Your task to perform on an android device: Empty the shopping cart on newegg.com. Add usb-b to the cart on newegg.com Image 0: 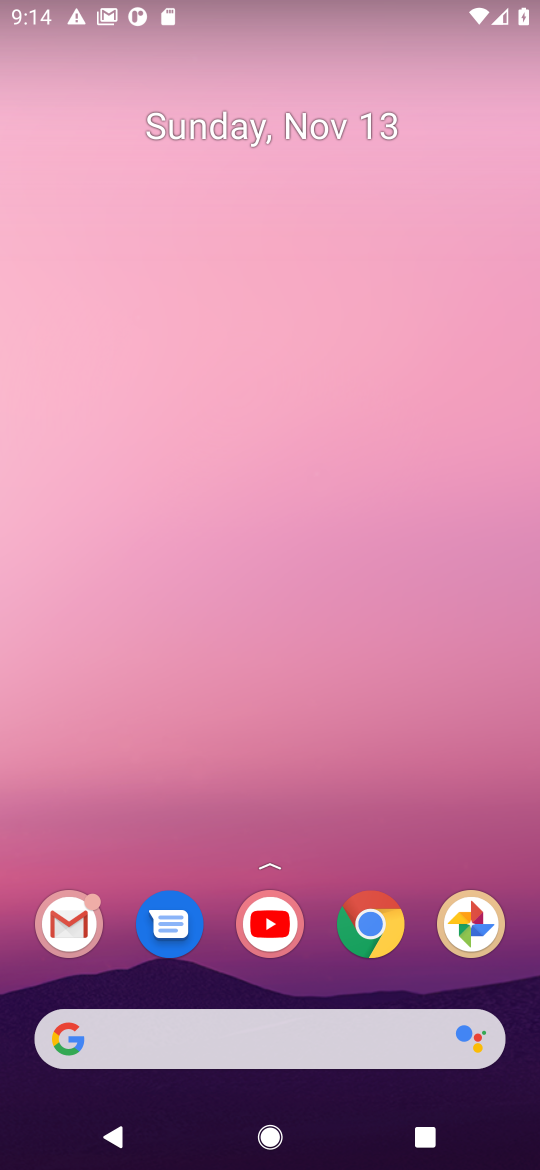
Step 0: click (374, 934)
Your task to perform on an android device: Empty the shopping cart on newegg.com. Add usb-b to the cart on newegg.com Image 1: 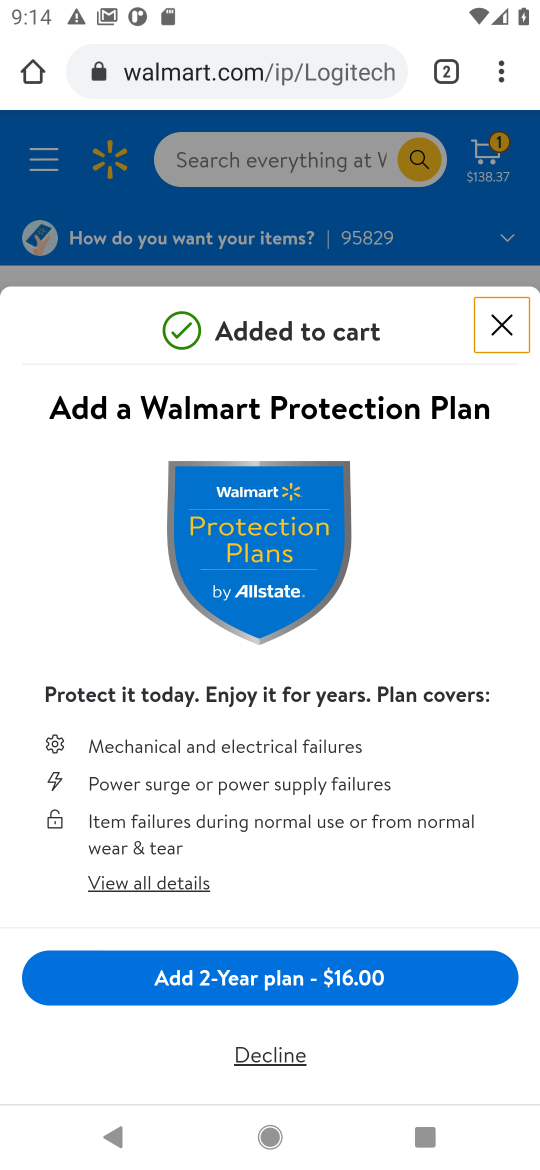
Step 1: click (231, 84)
Your task to perform on an android device: Empty the shopping cart on newegg.com. Add usb-b to the cart on newegg.com Image 2: 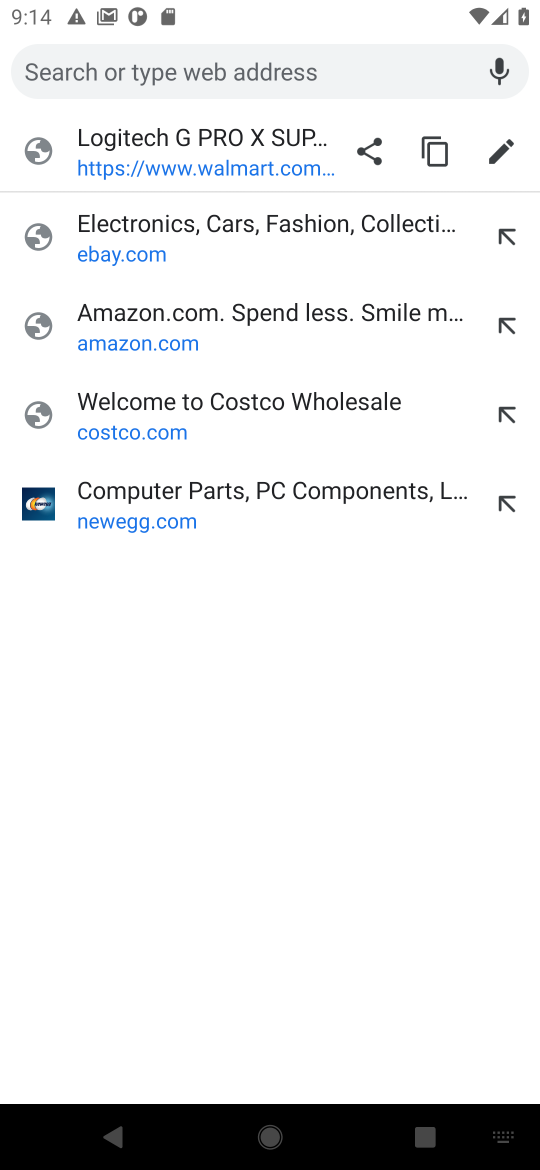
Step 2: click (112, 518)
Your task to perform on an android device: Empty the shopping cart on newegg.com. Add usb-b to the cart on newegg.com Image 3: 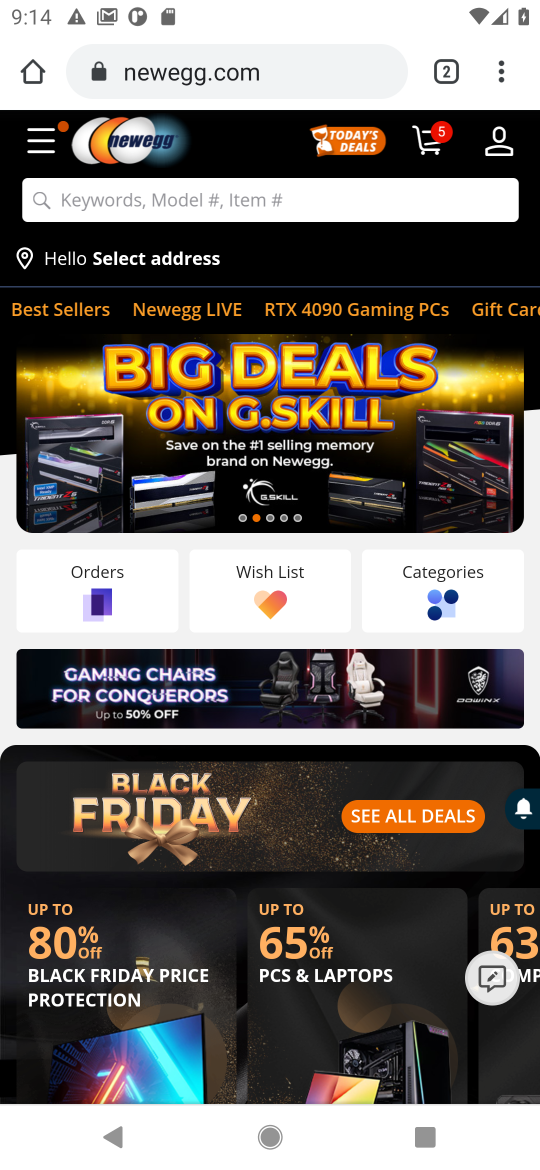
Step 3: click (421, 152)
Your task to perform on an android device: Empty the shopping cart on newegg.com. Add usb-b to the cart on newegg.com Image 4: 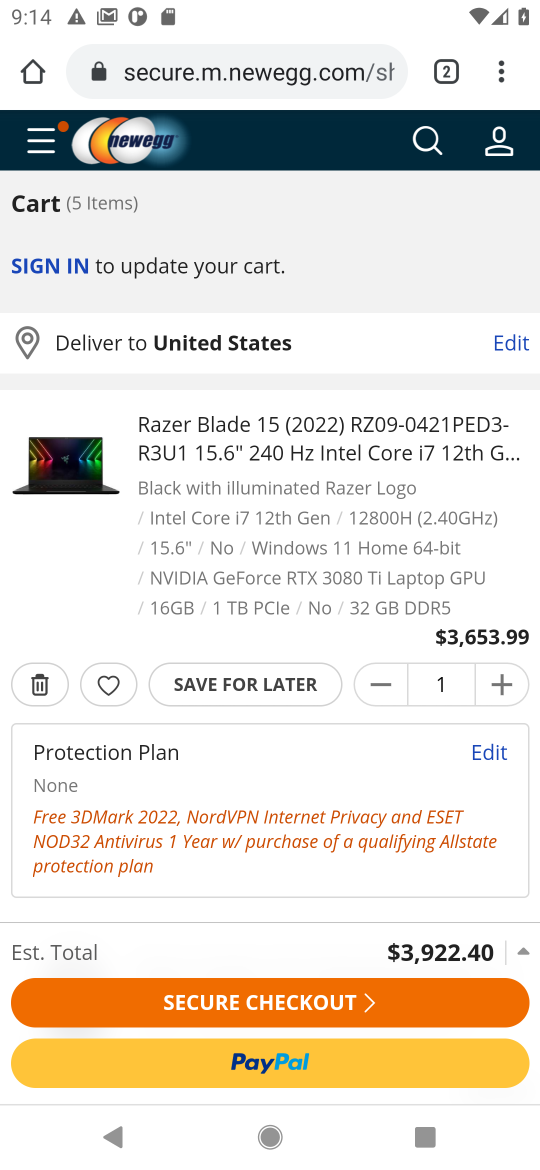
Step 4: click (41, 700)
Your task to perform on an android device: Empty the shopping cart on newegg.com. Add usb-b to the cart on newegg.com Image 5: 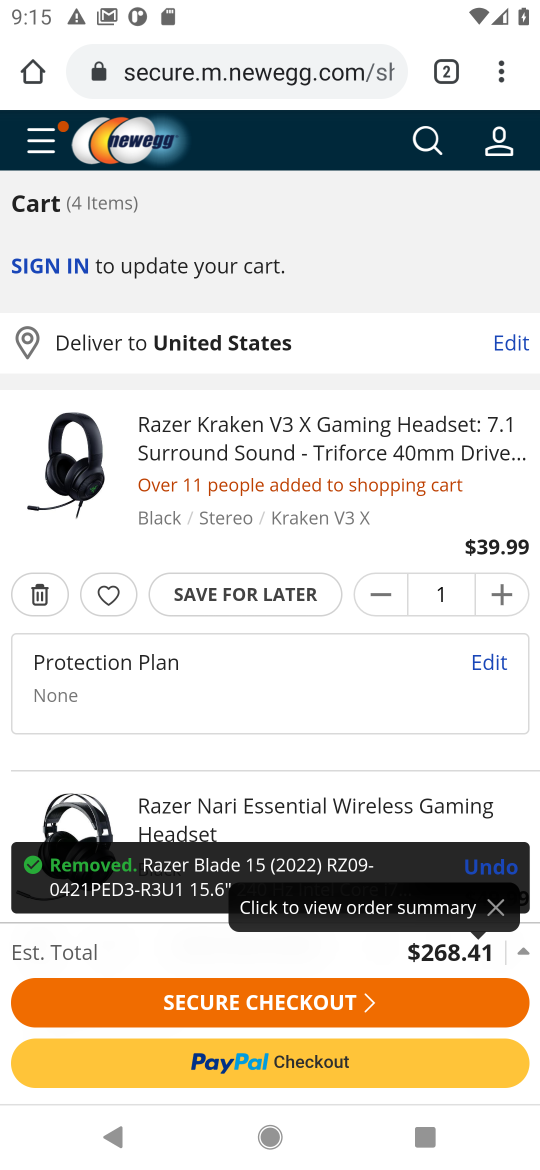
Step 5: click (40, 596)
Your task to perform on an android device: Empty the shopping cart on newegg.com. Add usb-b to the cart on newegg.com Image 6: 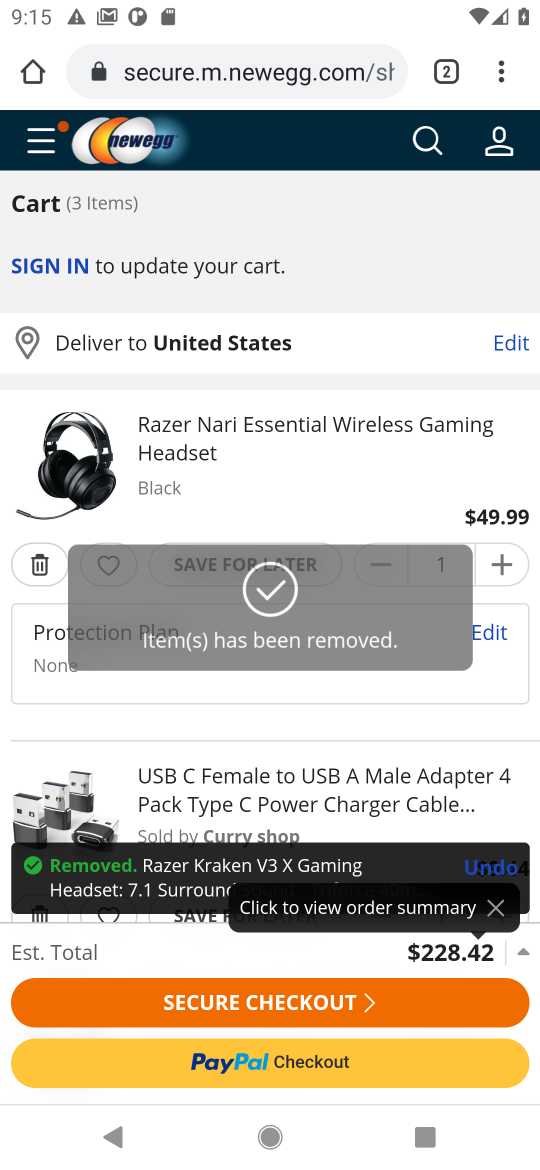
Step 6: click (36, 573)
Your task to perform on an android device: Empty the shopping cart on newegg.com. Add usb-b to the cart on newegg.com Image 7: 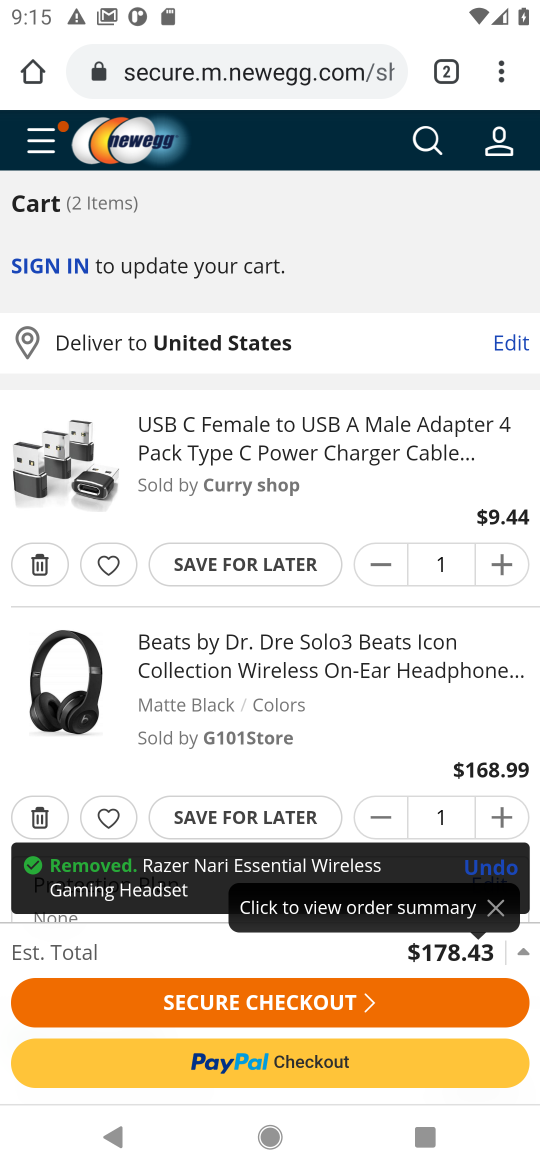
Step 7: click (48, 566)
Your task to perform on an android device: Empty the shopping cart on newegg.com. Add usb-b to the cart on newegg.com Image 8: 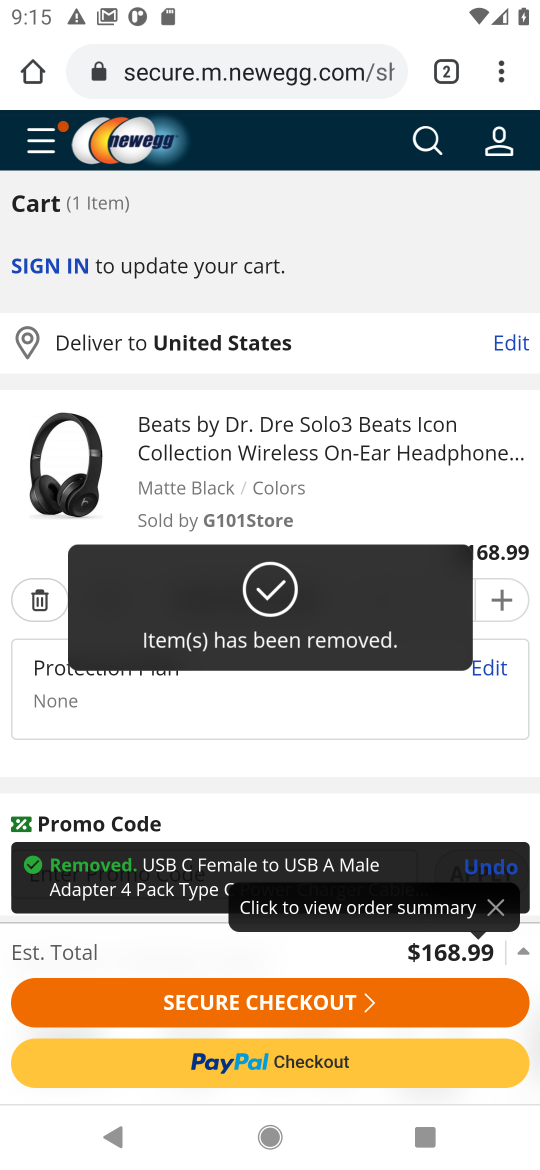
Step 8: click (33, 603)
Your task to perform on an android device: Empty the shopping cart on newegg.com. Add usb-b to the cart on newegg.com Image 9: 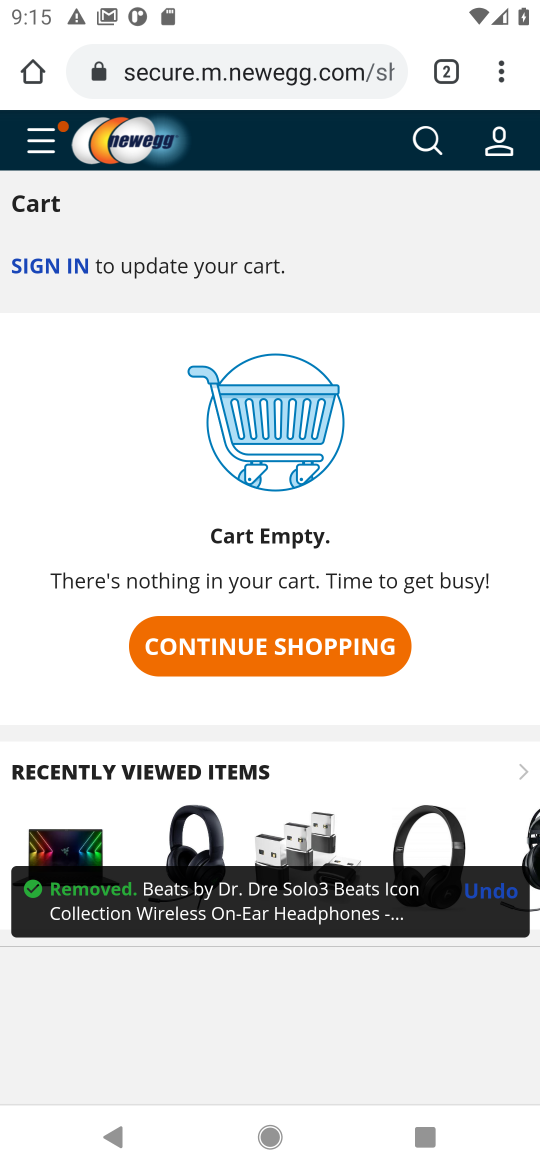
Step 9: click (262, 652)
Your task to perform on an android device: Empty the shopping cart on newegg.com. Add usb-b to the cart on newegg.com Image 10: 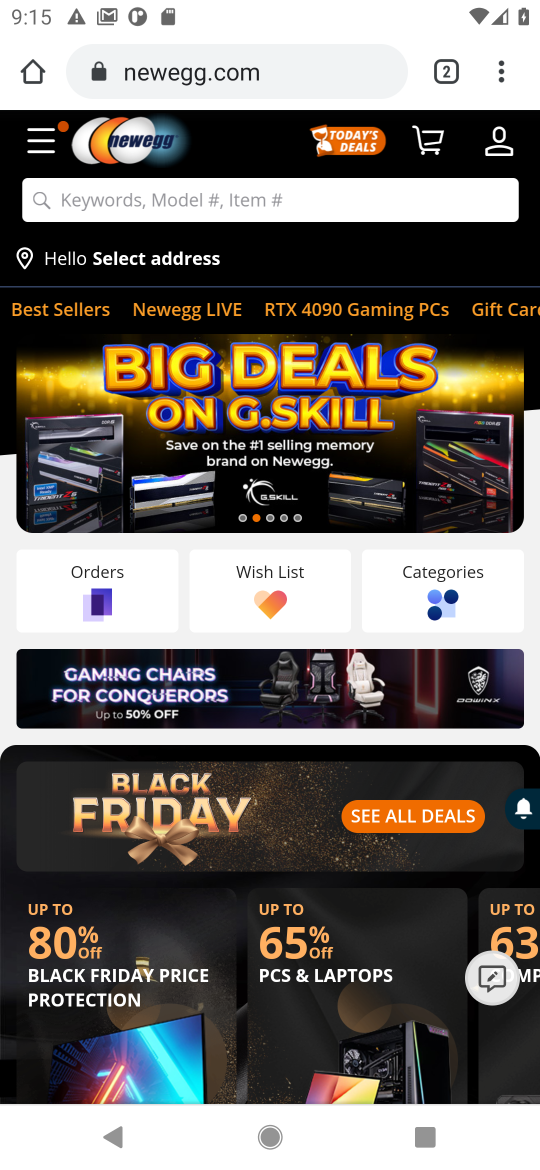
Step 10: click (148, 204)
Your task to perform on an android device: Empty the shopping cart on newegg.com. Add usb-b to the cart on newegg.com Image 11: 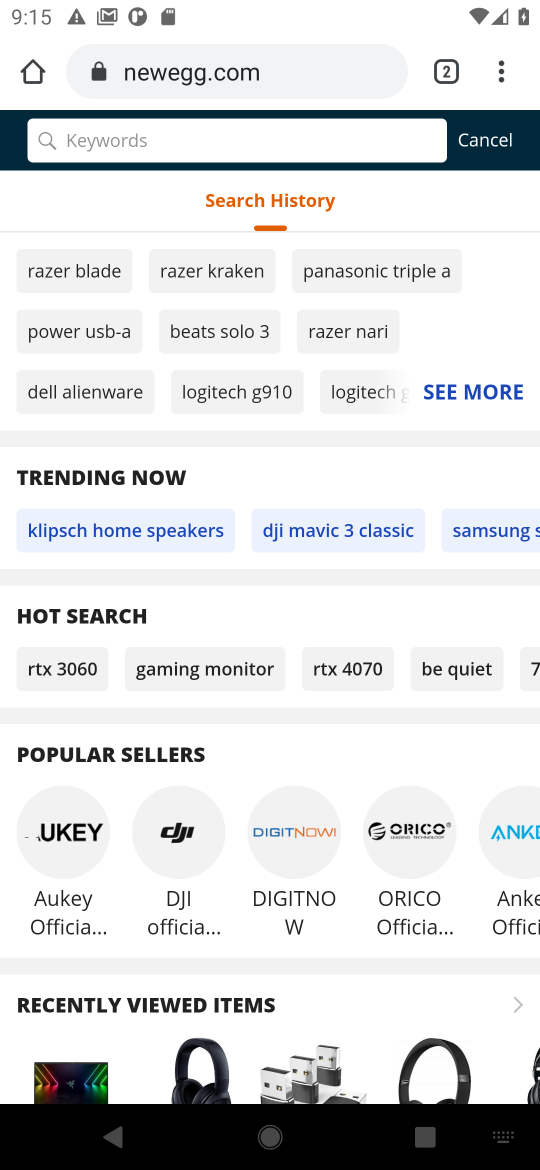
Step 11: type " usb-b"
Your task to perform on an android device: Empty the shopping cart on newegg.com. Add usb-b to the cart on newegg.com Image 12: 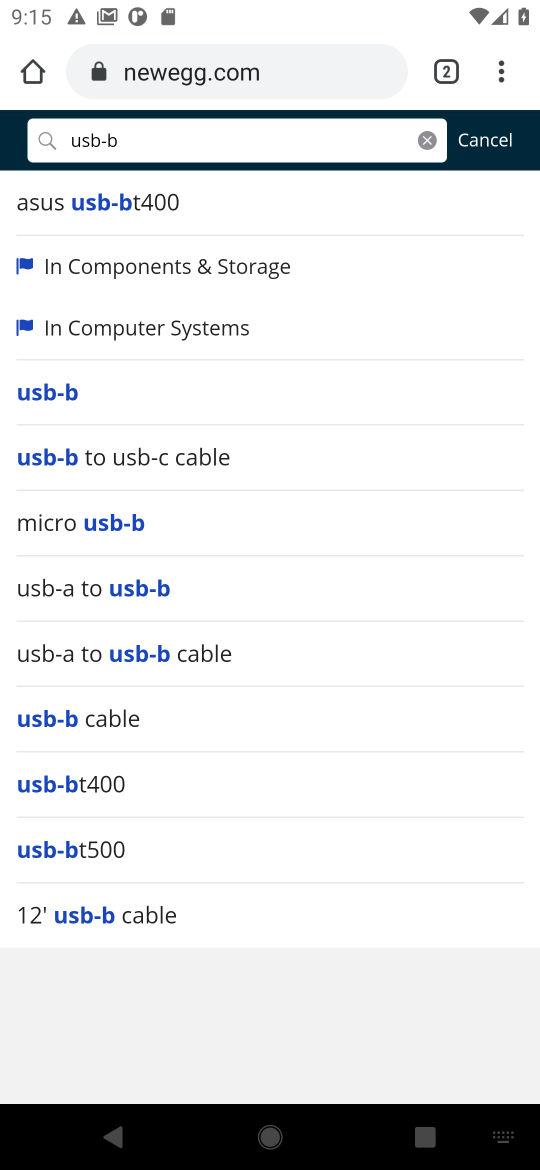
Step 12: click (67, 388)
Your task to perform on an android device: Empty the shopping cart on newegg.com. Add usb-b to the cart on newegg.com Image 13: 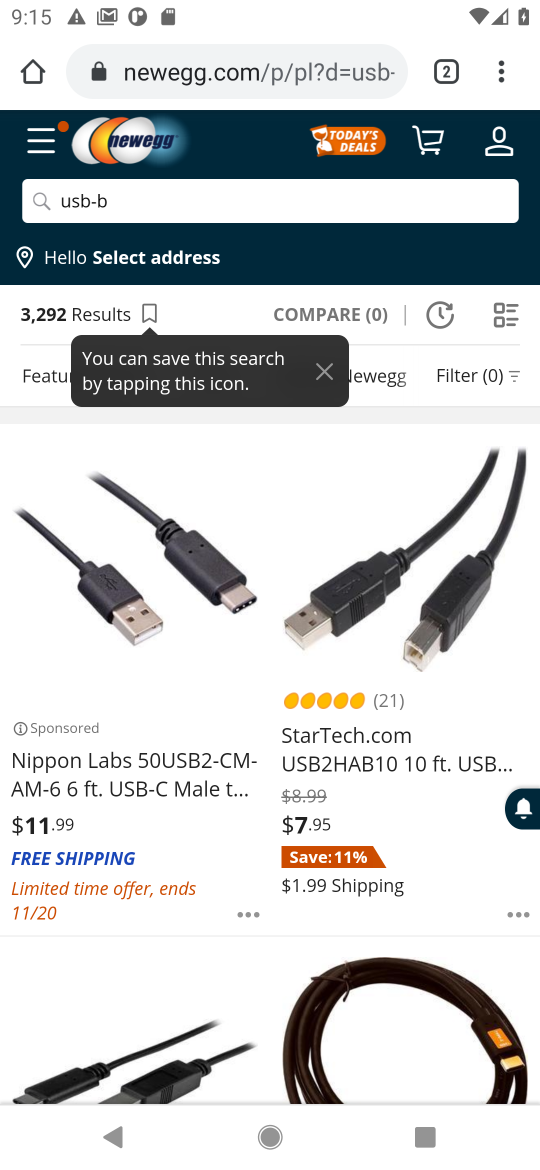
Step 13: drag from (178, 872) to (182, 510)
Your task to perform on an android device: Empty the shopping cart on newegg.com. Add usb-b to the cart on newegg.com Image 14: 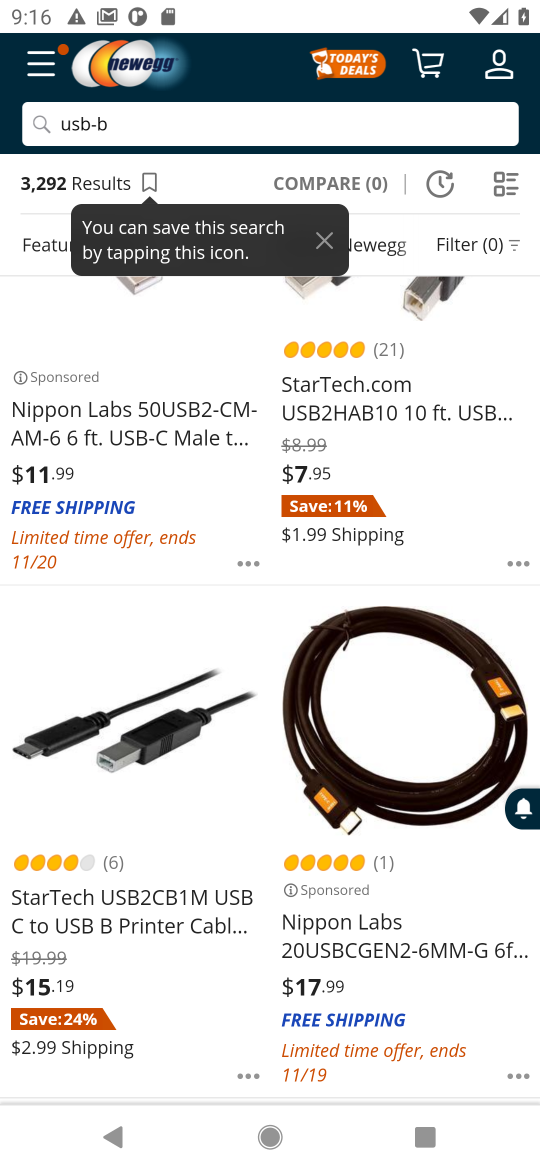
Step 14: click (160, 491)
Your task to perform on an android device: Empty the shopping cart on newegg.com. Add usb-b to the cart on newegg.com Image 15: 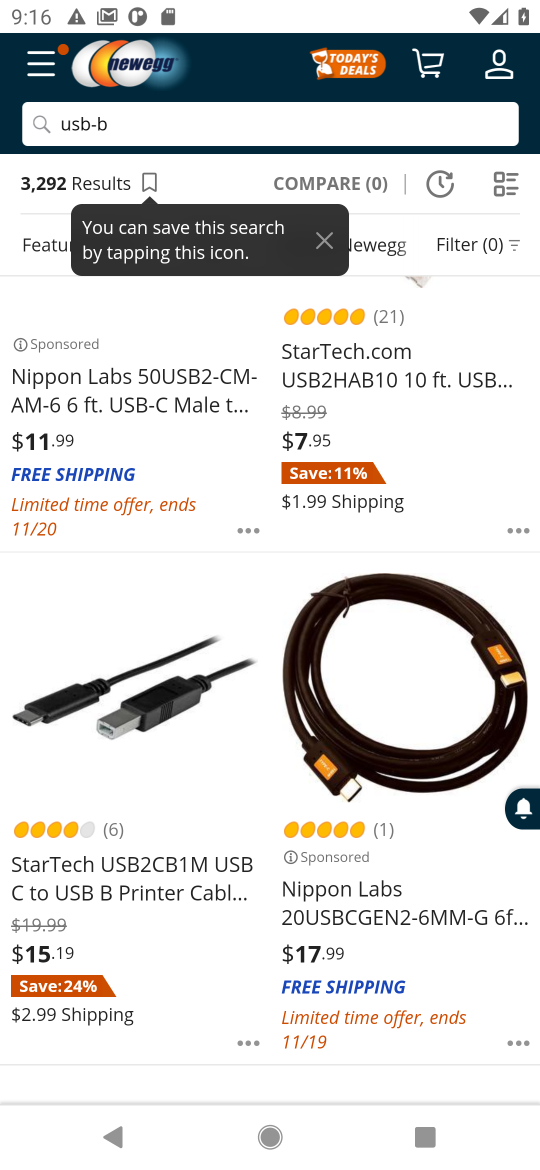
Step 15: drag from (133, 888) to (109, 530)
Your task to perform on an android device: Empty the shopping cart on newegg.com. Add usb-b to the cart on newegg.com Image 16: 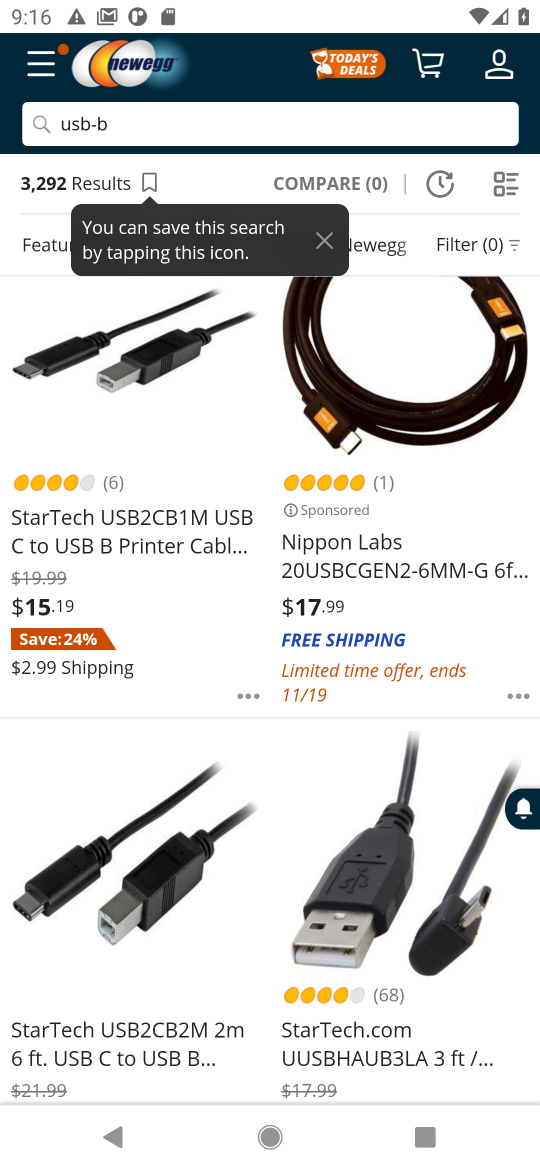
Step 16: drag from (109, 530) to (127, 928)
Your task to perform on an android device: Empty the shopping cart on newegg.com. Add usb-b to the cart on newegg.com Image 17: 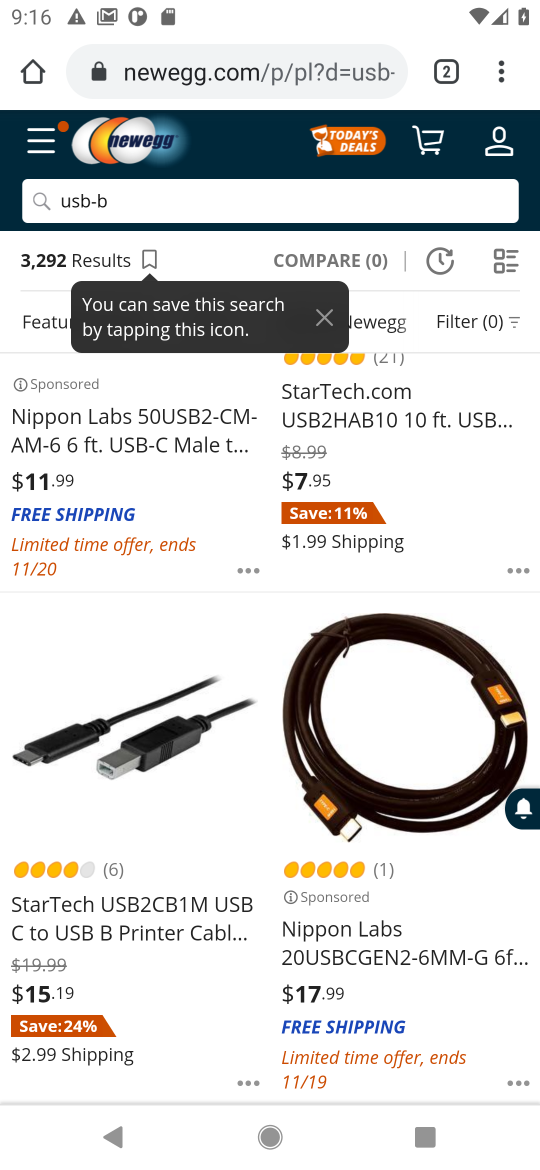
Step 17: drag from (122, 573) to (113, 861)
Your task to perform on an android device: Empty the shopping cart on newegg.com. Add usb-b to the cart on newegg.com Image 18: 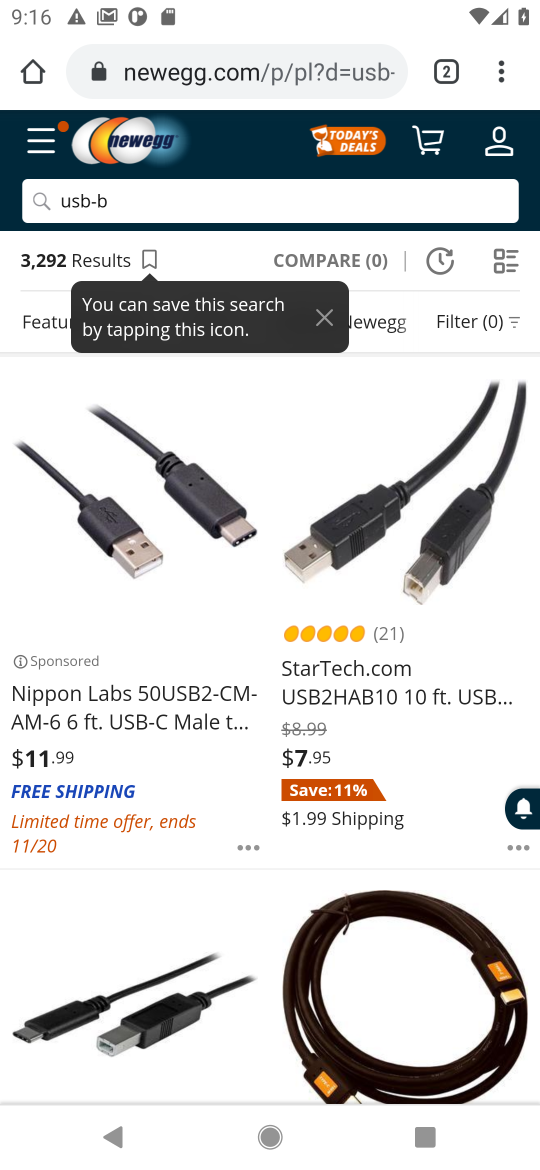
Step 18: click (109, 574)
Your task to perform on an android device: Empty the shopping cart on newegg.com. Add usb-b to the cart on newegg.com Image 19: 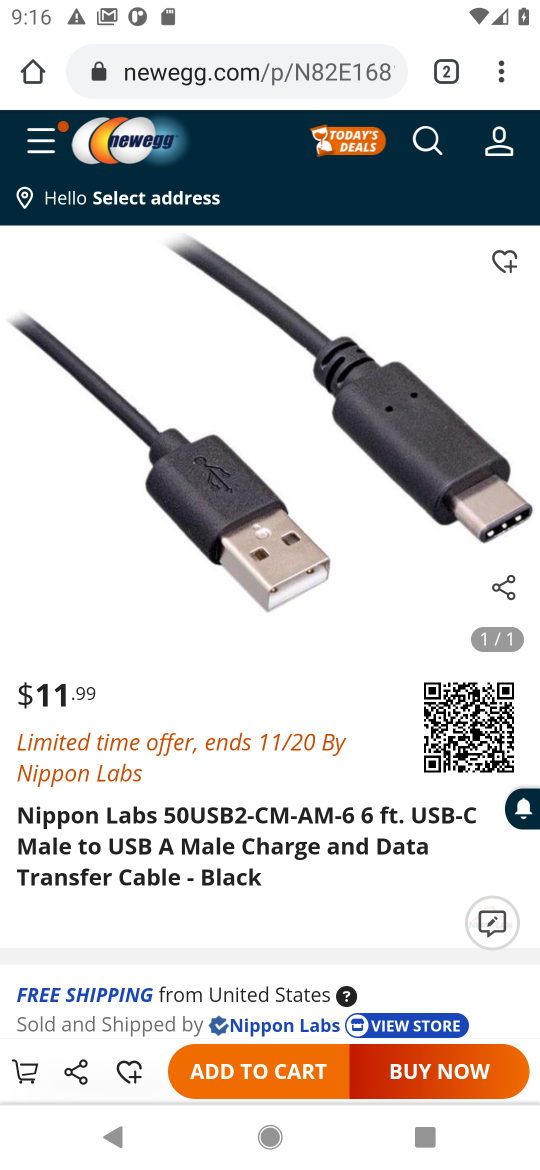
Step 19: press back button
Your task to perform on an android device: Empty the shopping cart on newegg.com. Add usb-b to the cart on newegg.com Image 20: 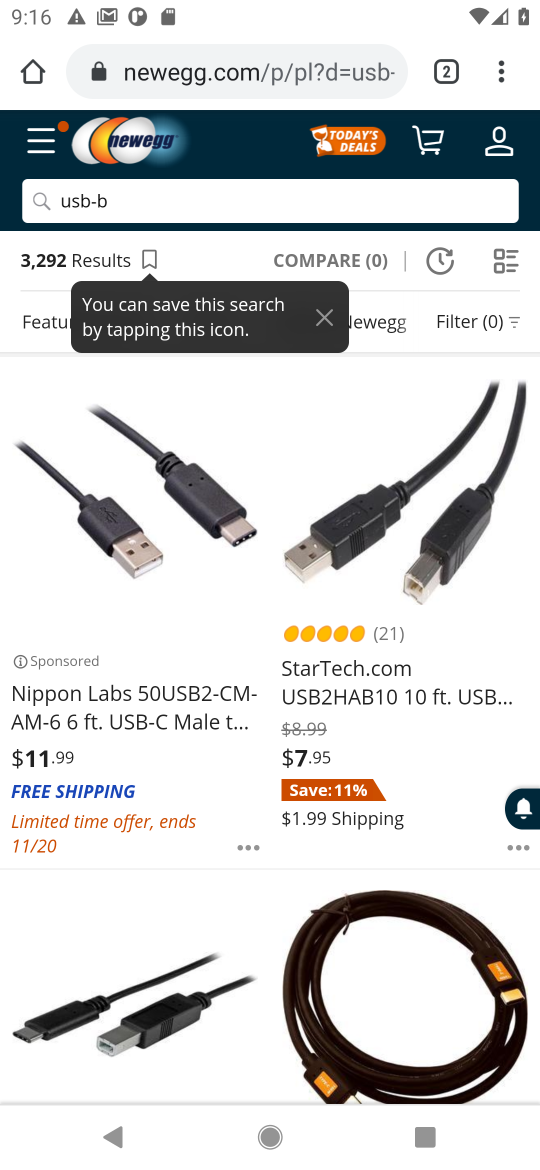
Step 20: click (330, 621)
Your task to perform on an android device: Empty the shopping cart on newegg.com. Add usb-b to the cart on newegg.com Image 21: 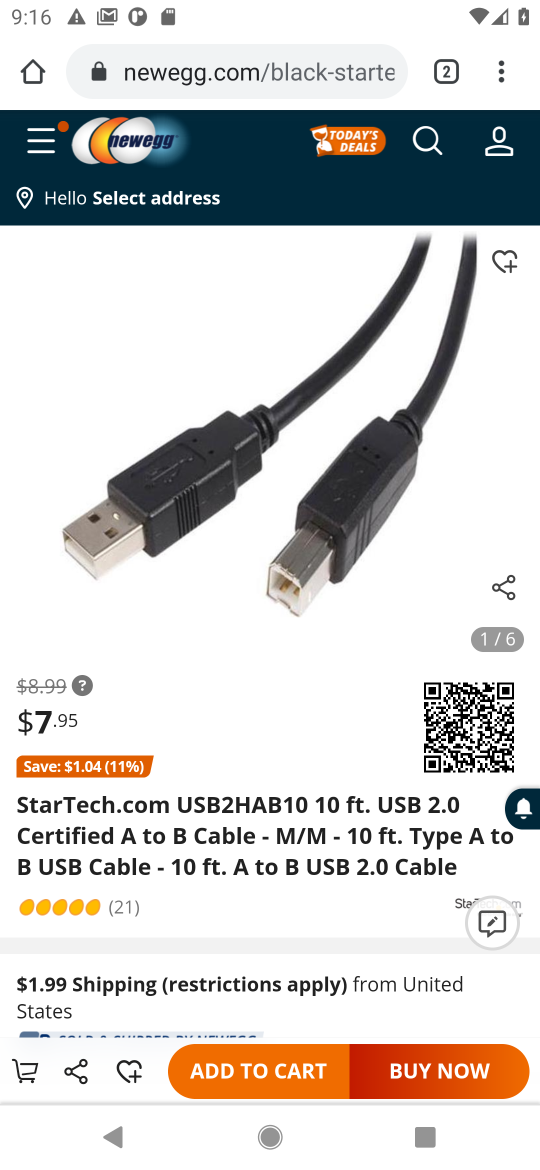
Step 21: click (243, 1067)
Your task to perform on an android device: Empty the shopping cart on newegg.com. Add usb-b to the cart on newegg.com Image 22: 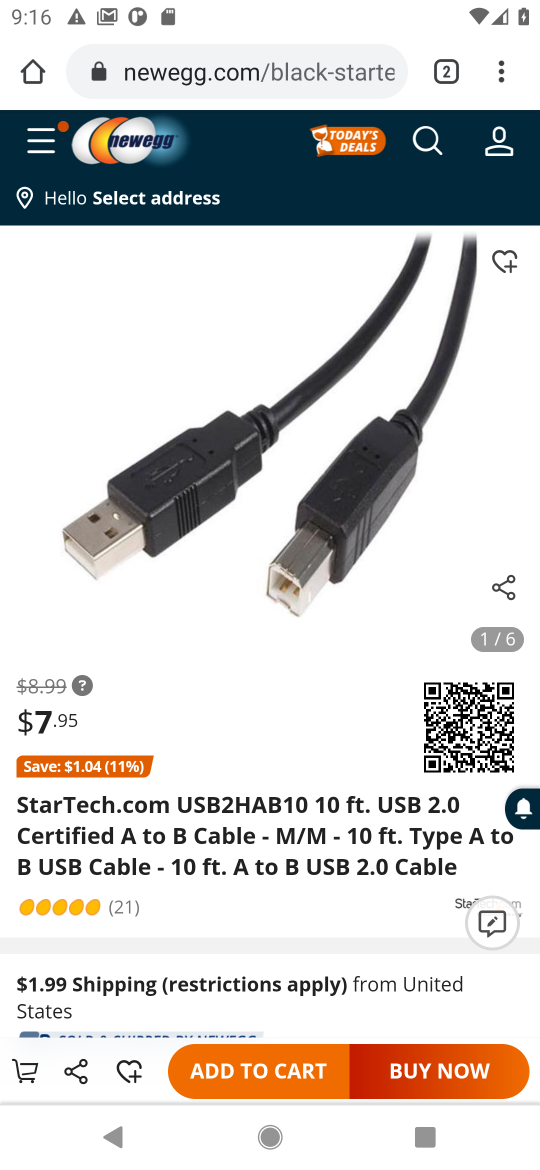
Step 22: click (256, 1085)
Your task to perform on an android device: Empty the shopping cart on newegg.com. Add usb-b to the cart on newegg.com Image 23: 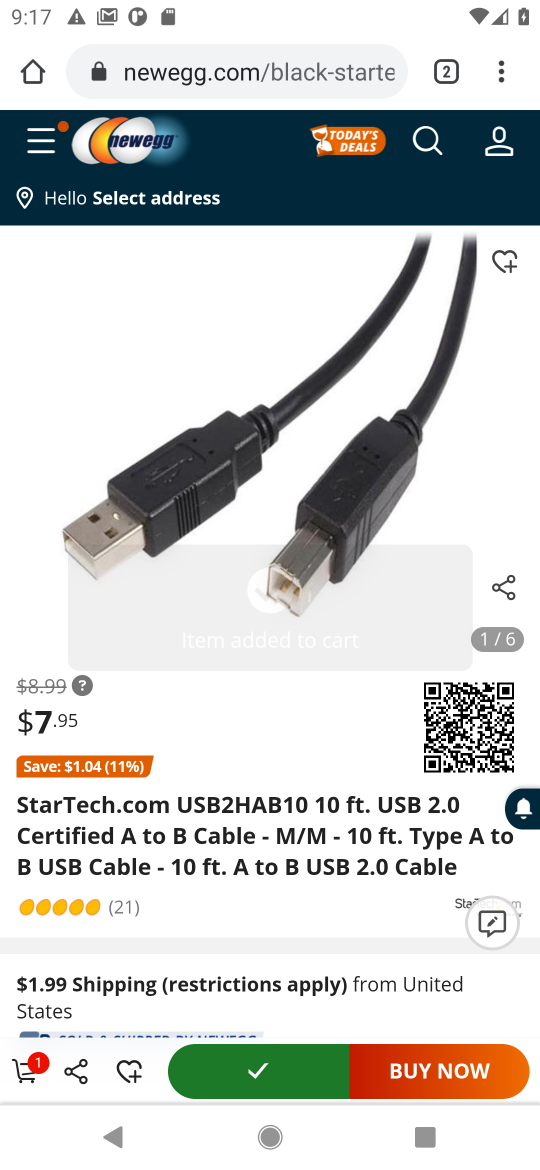
Step 23: task complete